Your task to perform on an android device: change notifications settings Image 0: 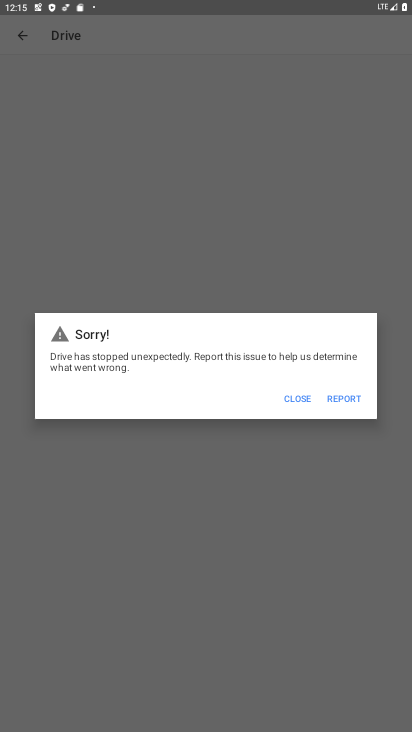
Step 0: press home button
Your task to perform on an android device: change notifications settings Image 1: 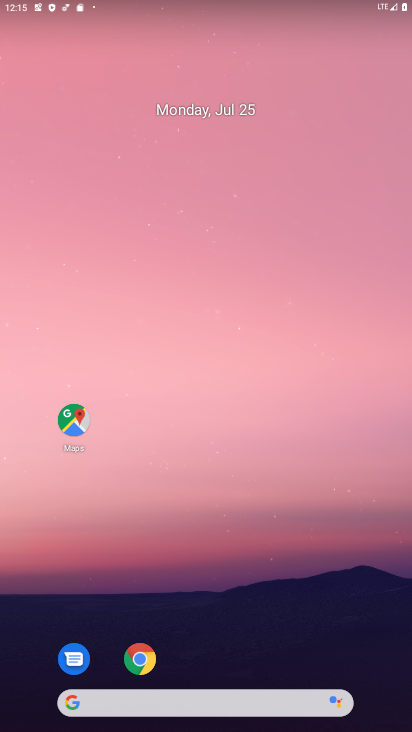
Step 1: drag from (23, 653) to (325, 15)
Your task to perform on an android device: change notifications settings Image 2: 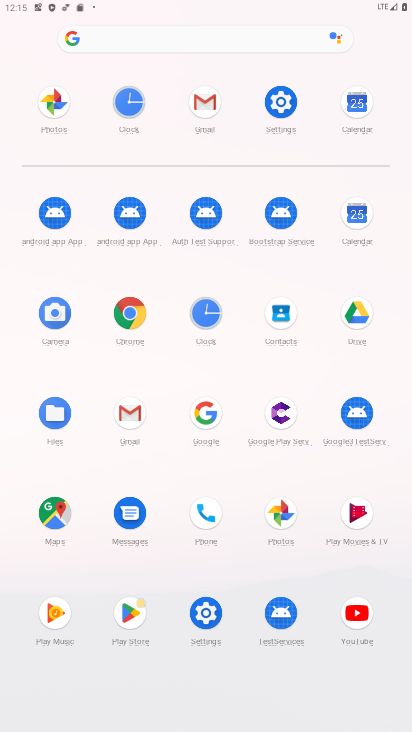
Step 2: click (197, 634)
Your task to perform on an android device: change notifications settings Image 3: 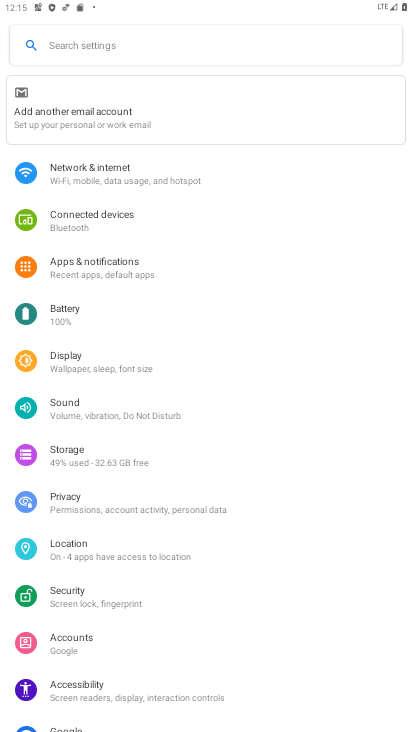
Step 3: click (136, 278)
Your task to perform on an android device: change notifications settings Image 4: 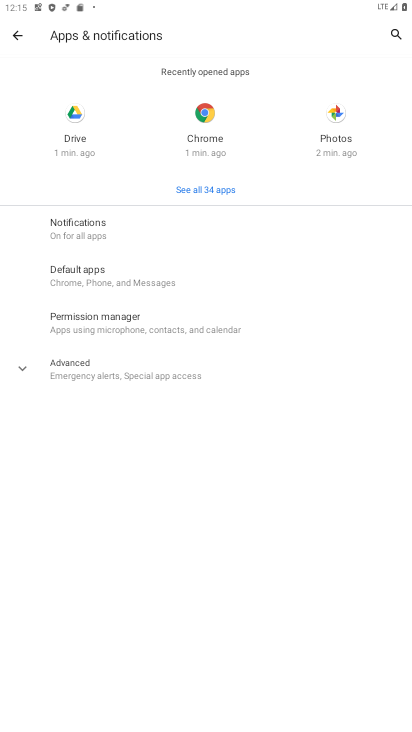
Step 4: click (47, 375)
Your task to perform on an android device: change notifications settings Image 5: 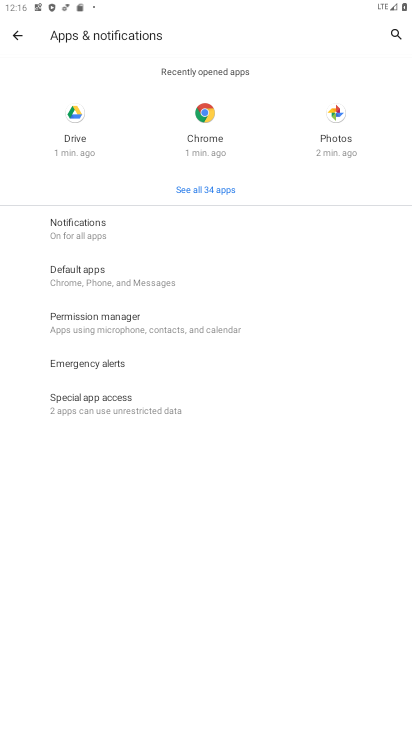
Step 5: click (89, 273)
Your task to perform on an android device: change notifications settings Image 6: 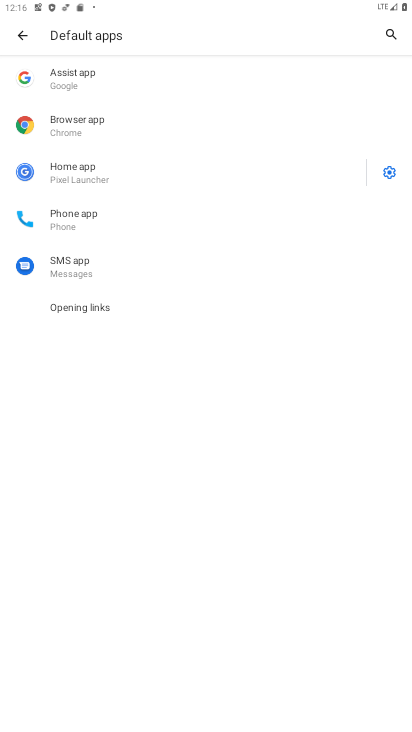
Step 6: click (13, 21)
Your task to perform on an android device: change notifications settings Image 7: 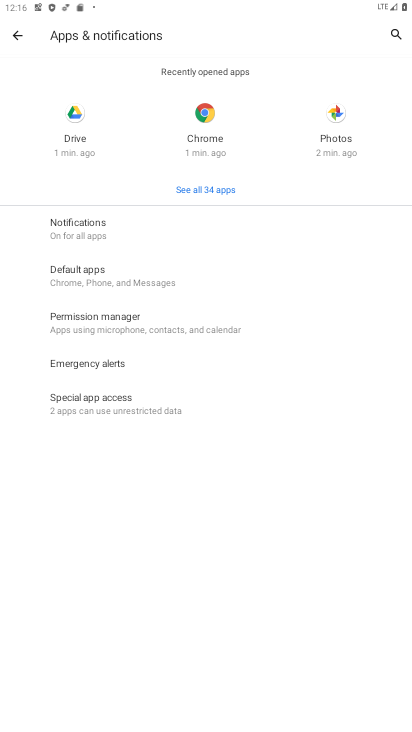
Step 7: click (124, 226)
Your task to perform on an android device: change notifications settings Image 8: 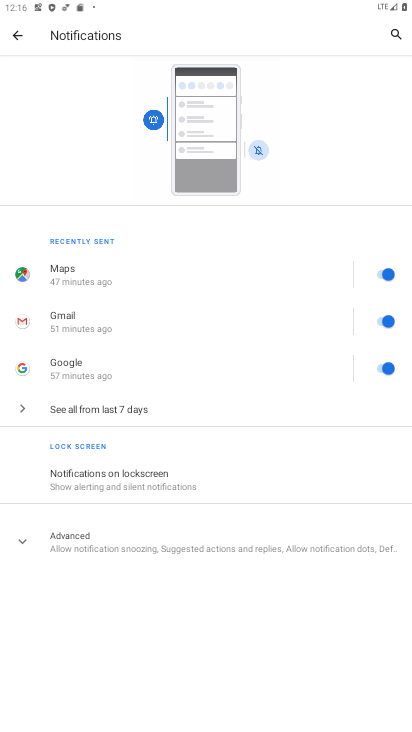
Step 8: task complete